Your task to perform on an android device: When is my next appointment? Image 0: 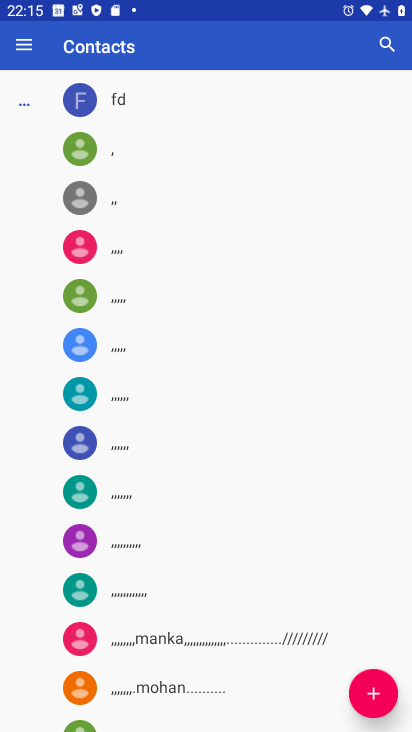
Step 0: press home button
Your task to perform on an android device: When is my next appointment? Image 1: 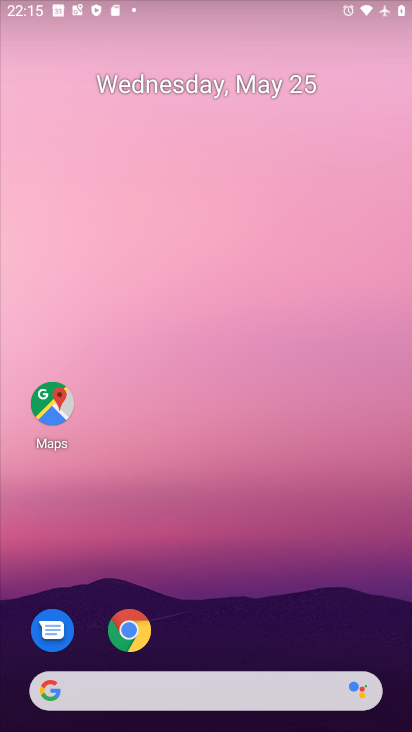
Step 1: drag from (218, 624) to (210, 141)
Your task to perform on an android device: When is my next appointment? Image 2: 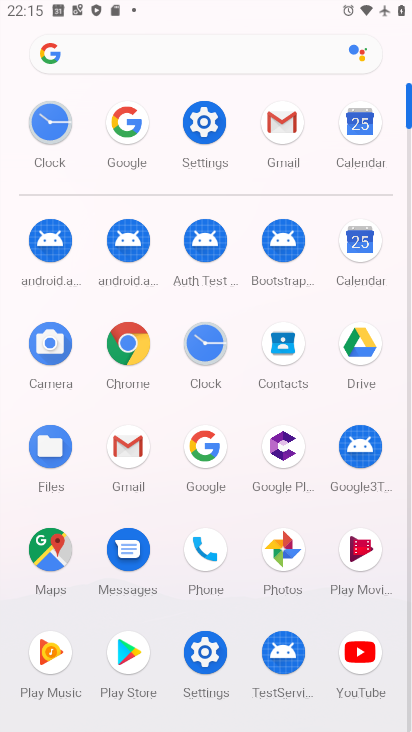
Step 2: click (345, 148)
Your task to perform on an android device: When is my next appointment? Image 3: 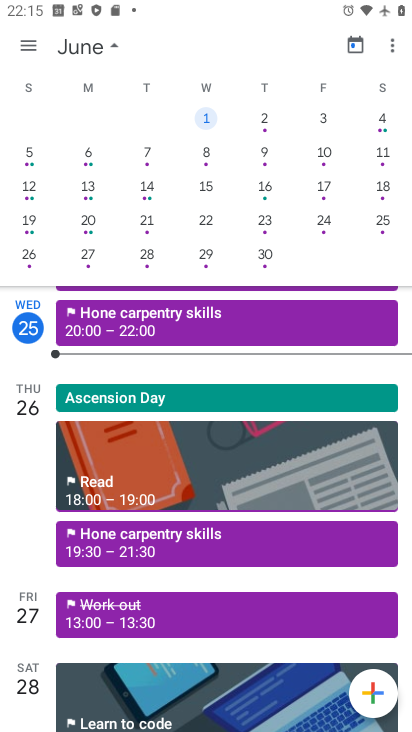
Step 3: task complete